Your task to perform on an android device: Show me recent news Image 0: 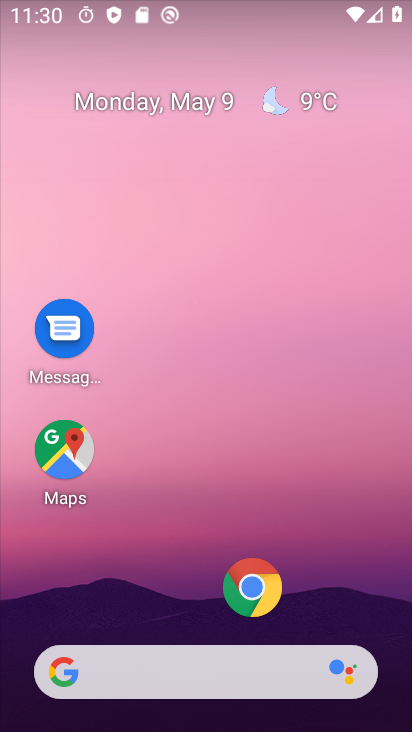
Step 0: click (247, 585)
Your task to perform on an android device: Show me recent news Image 1: 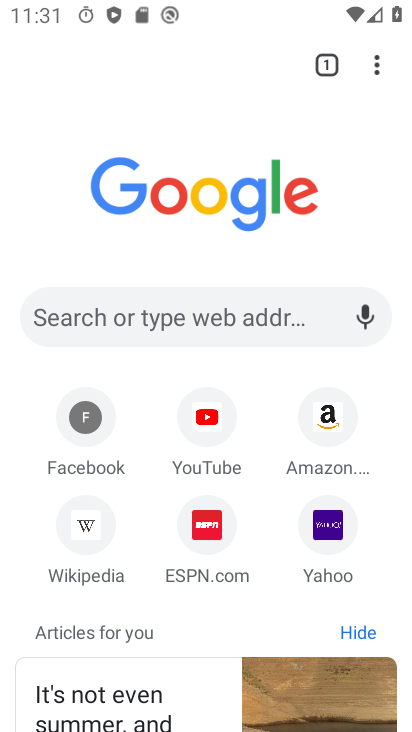
Step 1: click (106, 308)
Your task to perform on an android device: Show me recent news Image 2: 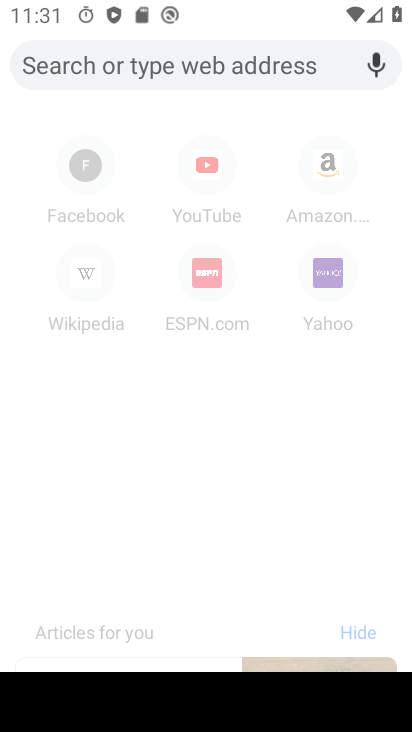
Step 2: type "recent news"
Your task to perform on an android device: Show me recent news Image 3: 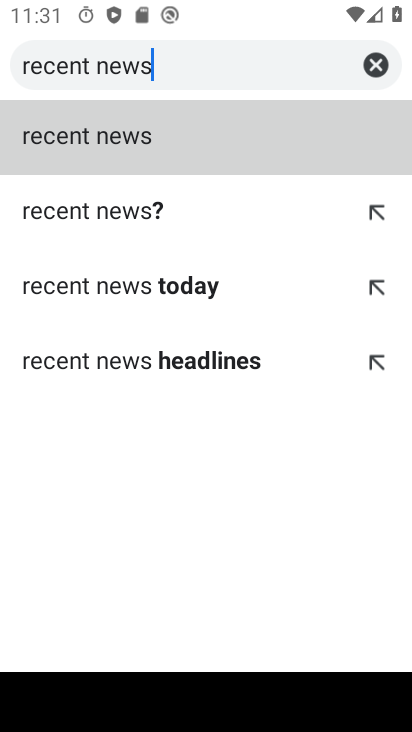
Step 3: click (196, 151)
Your task to perform on an android device: Show me recent news Image 4: 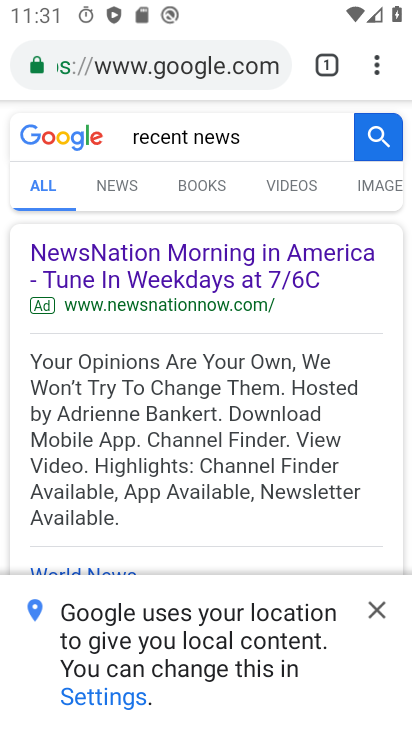
Step 4: task complete